Your task to perform on an android device: Open Google Chrome and click the shortcut for Amazon.com Image 0: 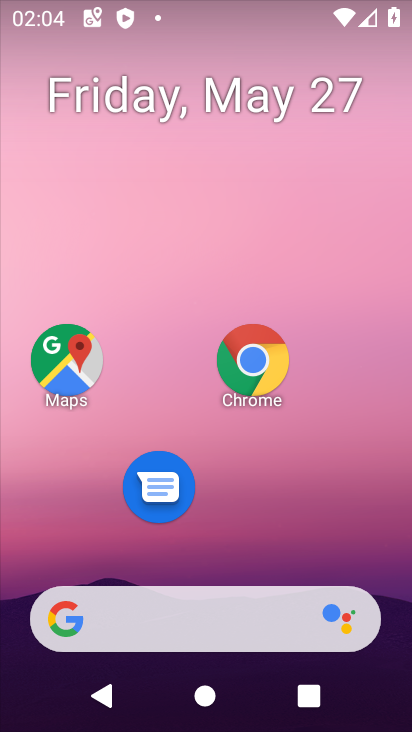
Step 0: click (250, 357)
Your task to perform on an android device: Open Google Chrome and click the shortcut for Amazon.com Image 1: 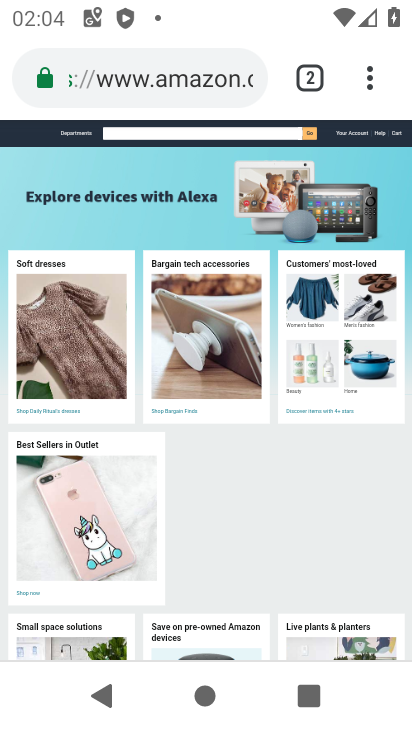
Step 1: press back button
Your task to perform on an android device: Open Google Chrome and click the shortcut for Amazon.com Image 2: 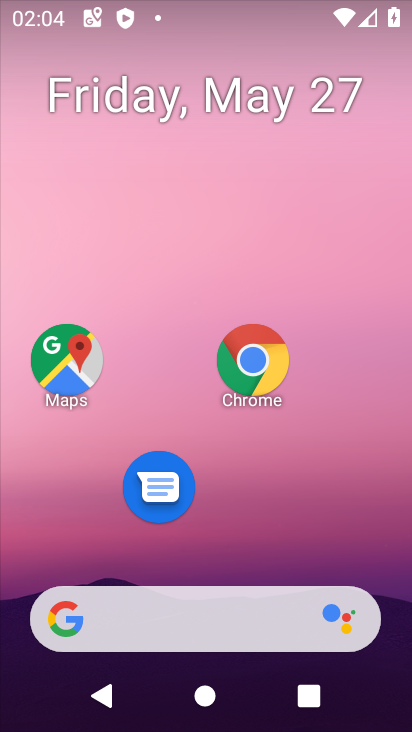
Step 2: click (247, 353)
Your task to perform on an android device: Open Google Chrome and click the shortcut for Amazon.com Image 3: 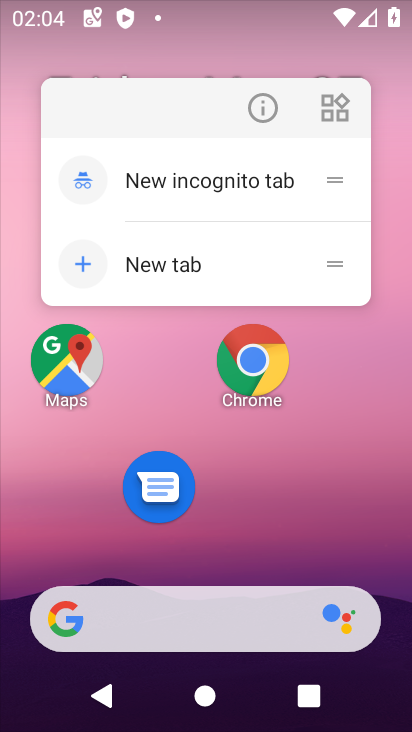
Step 3: click (256, 359)
Your task to perform on an android device: Open Google Chrome and click the shortcut for Amazon.com Image 4: 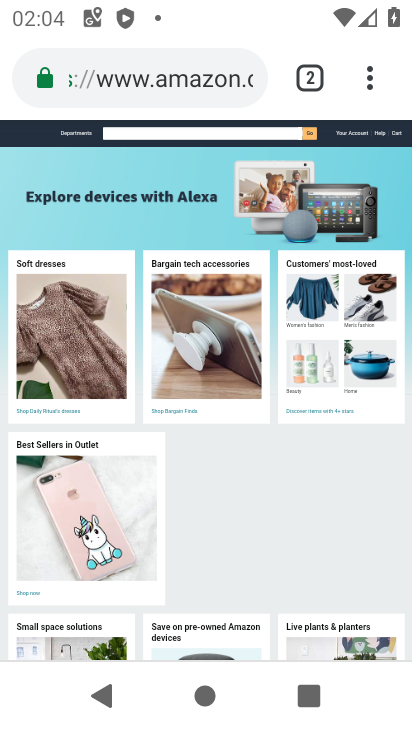
Step 4: task complete